Your task to perform on an android device: clear all cookies in the chrome app Image 0: 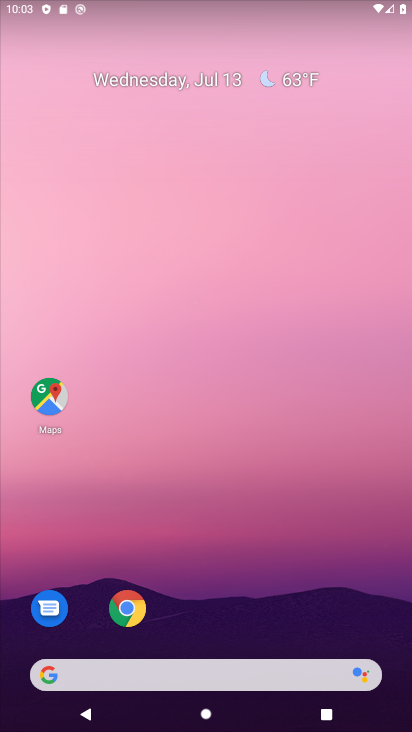
Step 0: drag from (227, 626) to (244, 34)
Your task to perform on an android device: clear all cookies in the chrome app Image 1: 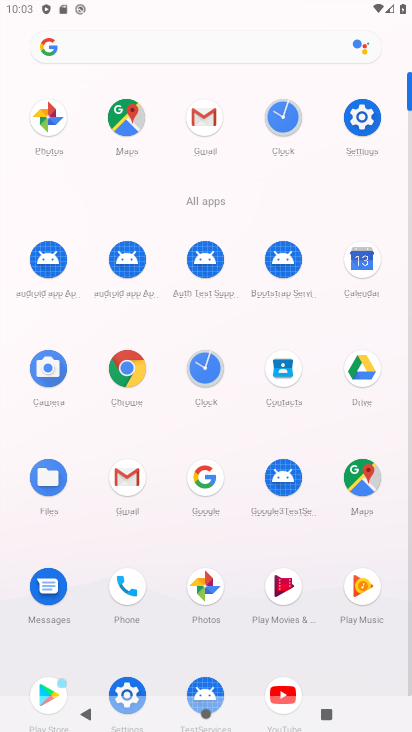
Step 1: click (119, 362)
Your task to perform on an android device: clear all cookies in the chrome app Image 2: 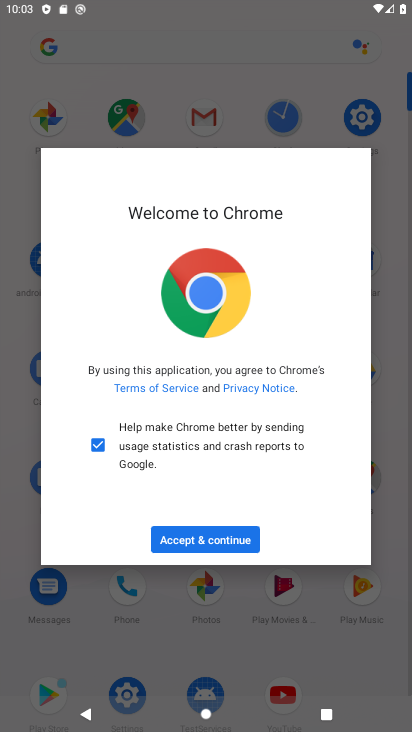
Step 2: click (228, 535)
Your task to perform on an android device: clear all cookies in the chrome app Image 3: 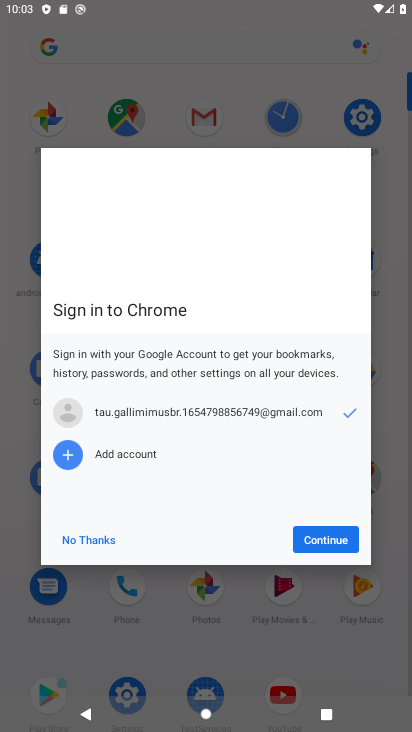
Step 3: click (319, 540)
Your task to perform on an android device: clear all cookies in the chrome app Image 4: 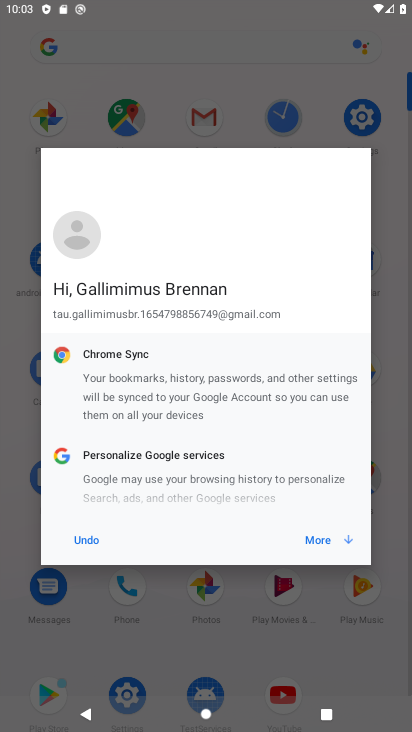
Step 4: click (326, 538)
Your task to perform on an android device: clear all cookies in the chrome app Image 5: 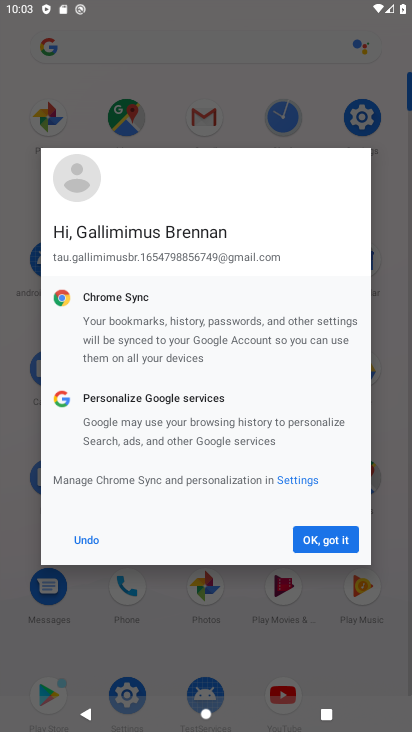
Step 5: click (322, 541)
Your task to perform on an android device: clear all cookies in the chrome app Image 6: 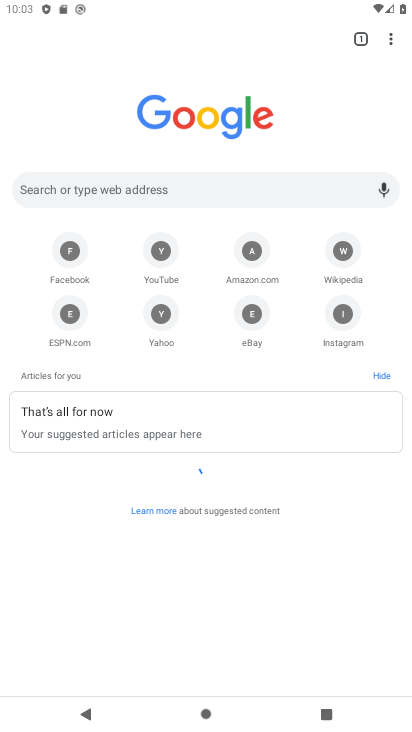
Step 6: drag from (387, 27) to (282, 321)
Your task to perform on an android device: clear all cookies in the chrome app Image 7: 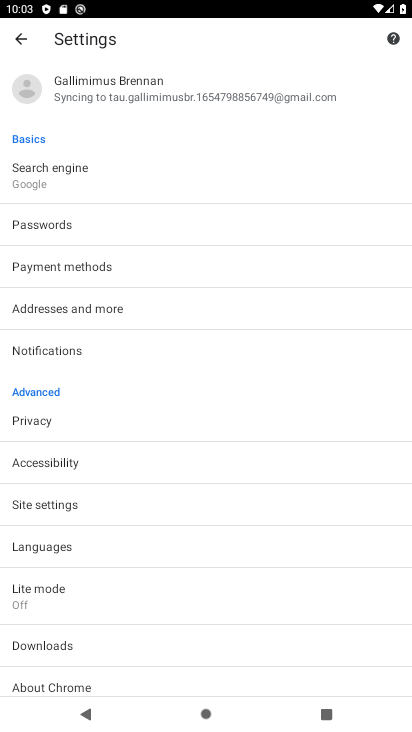
Step 7: click (34, 426)
Your task to perform on an android device: clear all cookies in the chrome app Image 8: 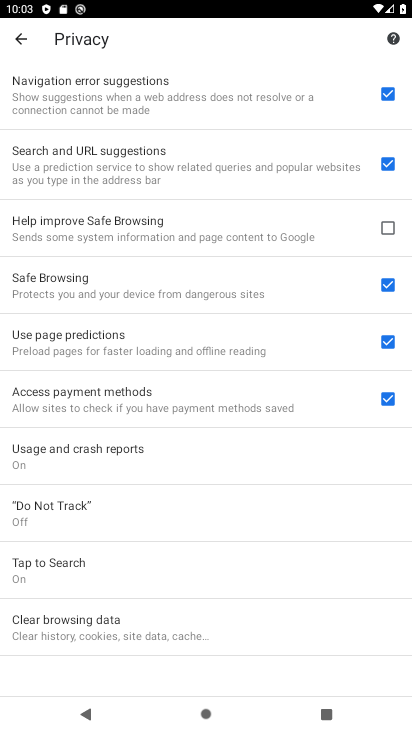
Step 8: drag from (179, 580) to (272, 104)
Your task to perform on an android device: clear all cookies in the chrome app Image 9: 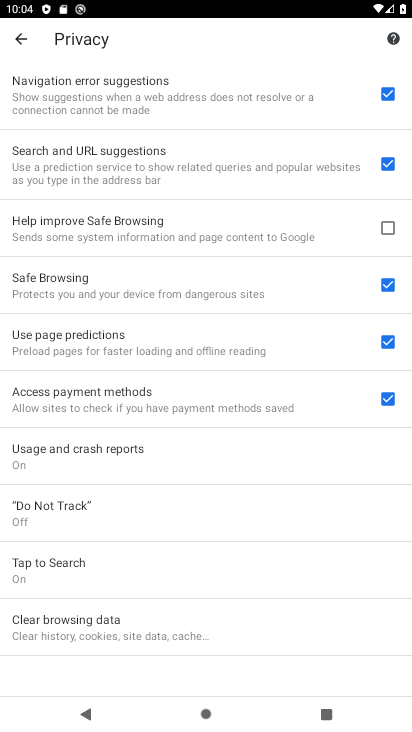
Step 9: click (101, 618)
Your task to perform on an android device: clear all cookies in the chrome app Image 10: 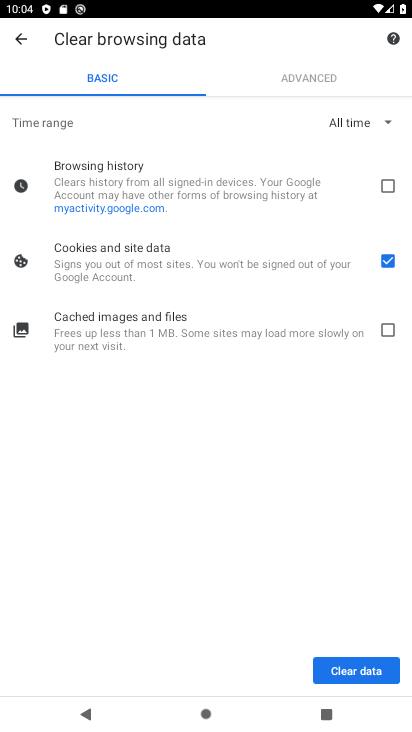
Step 10: click (370, 660)
Your task to perform on an android device: clear all cookies in the chrome app Image 11: 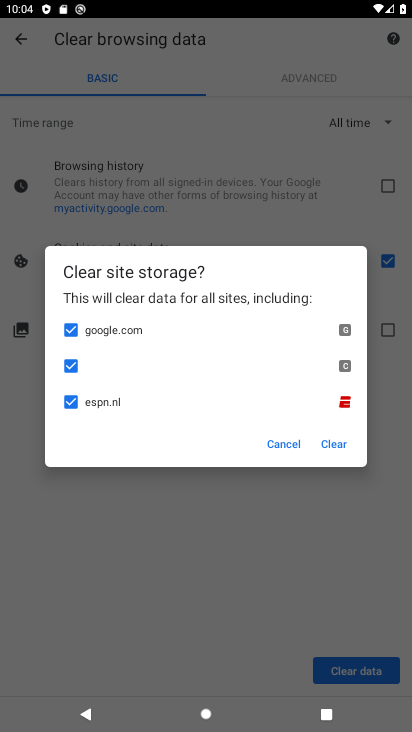
Step 11: click (292, 440)
Your task to perform on an android device: clear all cookies in the chrome app Image 12: 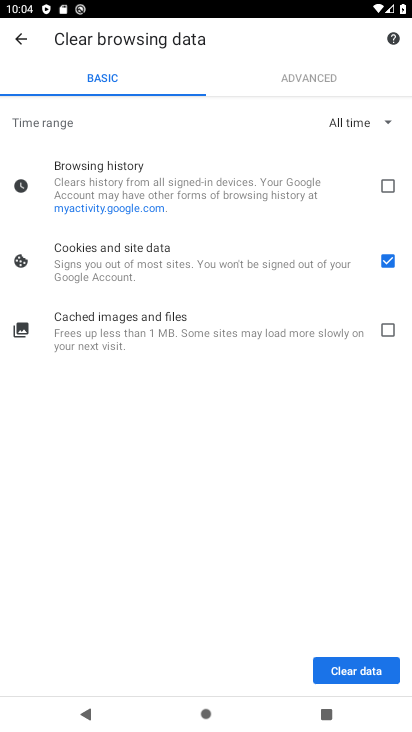
Step 12: click (337, 662)
Your task to perform on an android device: clear all cookies in the chrome app Image 13: 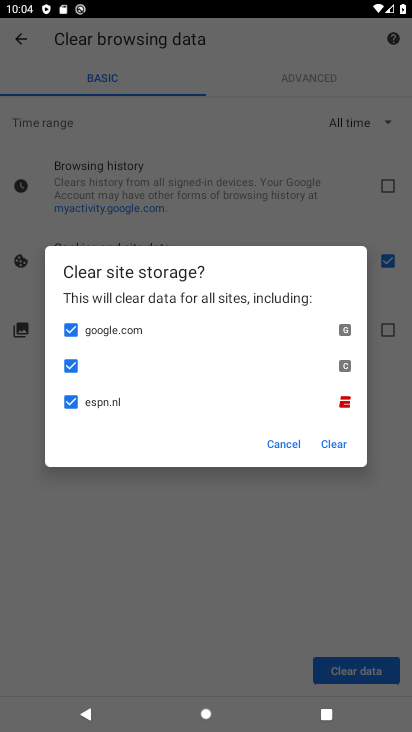
Step 13: click (327, 437)
Your task to perform on an android device: clear all cookies in the chrome app Image 14: 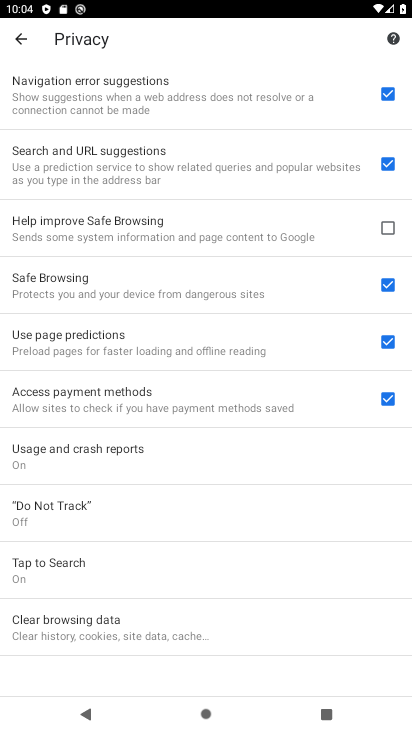
Step 14: task complete